Your task to perform on an android device: open app "Google Pay: Save, Pay, Manage" (install if not already installed) Image 0: 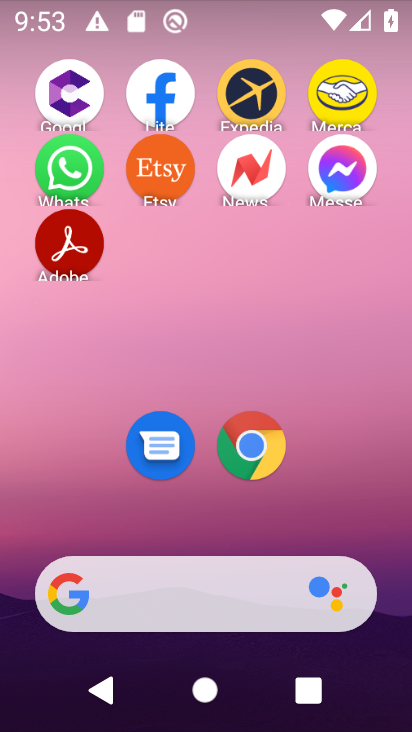
Step 0: drag from (408, 559) to (208, 24)
Your task to perform on an android device: open app "Google Pay: Save, Pay, Manage" (install if not already installed) Image 1: 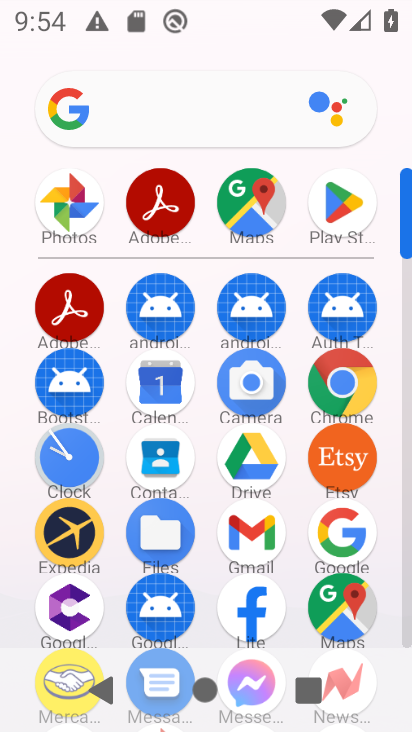
Step 1: click (323, 190)
Your task to perform on an android device: open app "Google Pay: Save, Pay, Manage" (install if not already installed) Image 2: 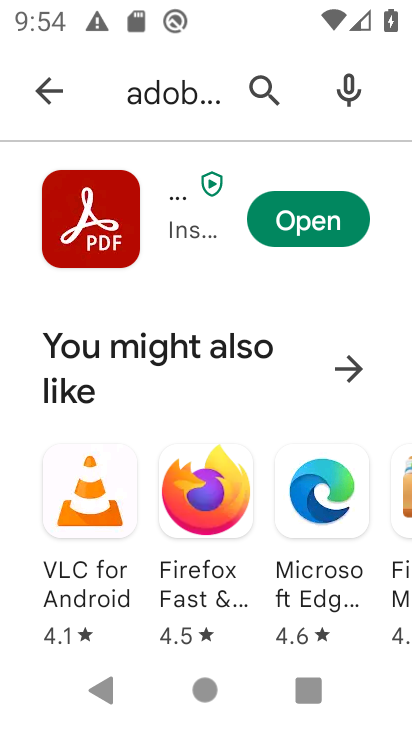
Step 2: press back button
Your task to perform on an android device: open app "Google Pay: Save, Pay, Manage" (install if not already installed) Image 3: 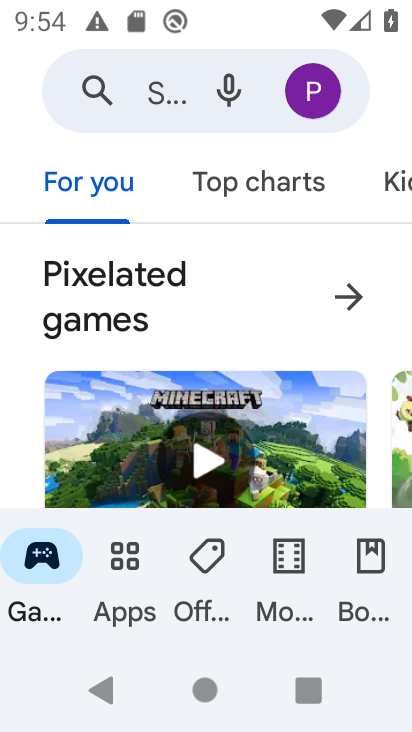
Step 3: click (127, 81)
Your task to perform on an android device: open app "Google Pay: Save, Pay, Manage" (install if not already installed) Image 4: 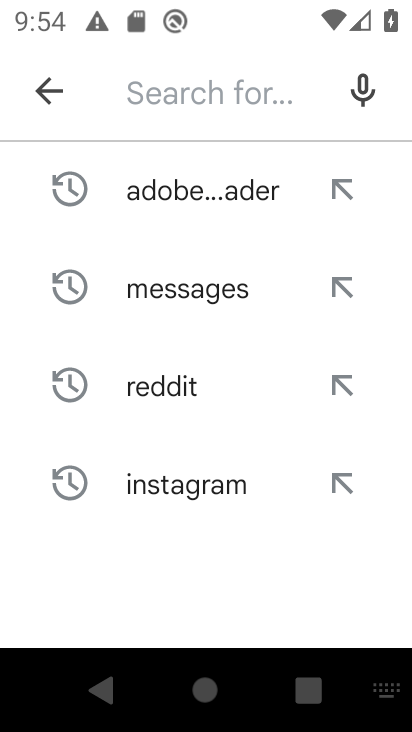
Step 4: type "Google Pay: Save, Pay, Manage"
Your task to perform on an android device: open app "Google Pay: Save, Pay, Manage" (install if not already installed) Image 5: 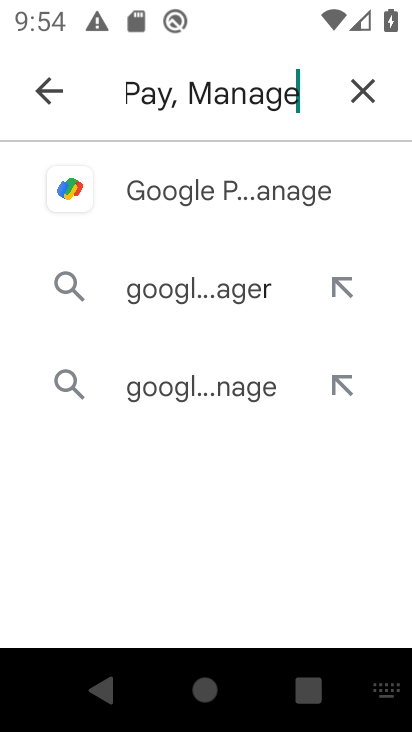
Step 5: click (147, 200)
Your task to perform on an android device: open app "Google Pay: Save, Pay, Manage" (install if not already installed) Image 6: 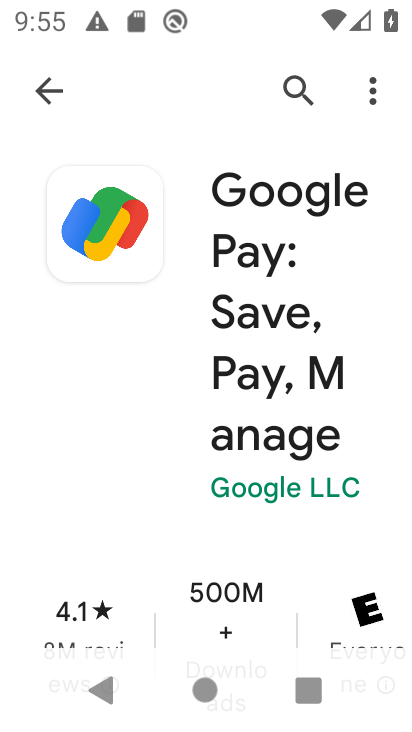
Step 6: task complete